Your task to perform on an android device: Open Google Chrome and click the shortcut for Amazon.com Image 0: 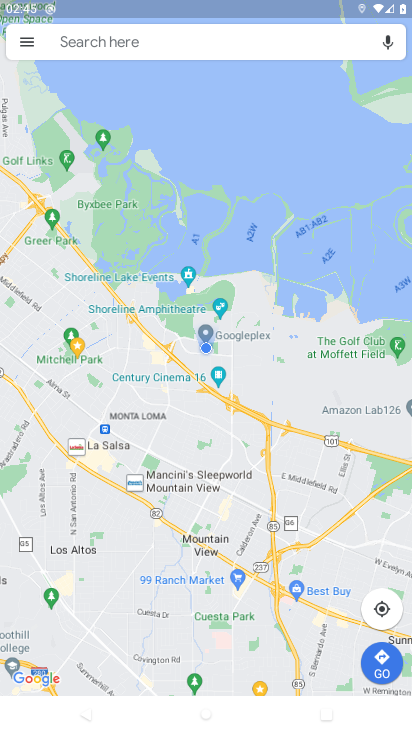
Step 0: press home button
Your task to perform on an android device: Open Google Chrome and click the shortcut for Amazon.com Image 1: 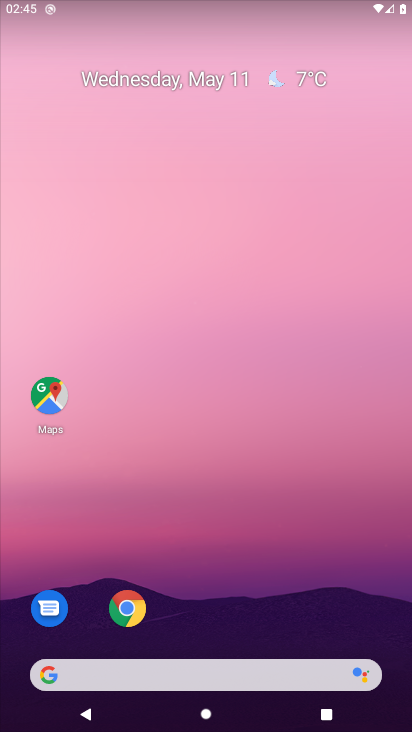
Step 1: click (125, 604)
Your task to perform on an android device: Open Google Chrome and click the shortcut for Amazon.com Image 2: 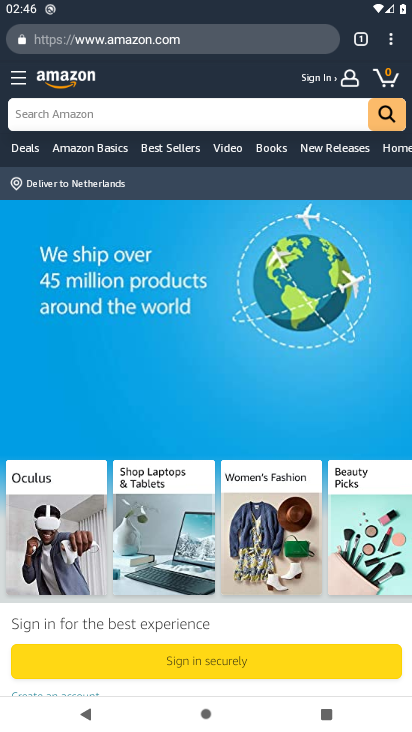
Step 2: task complete